Your task to perform on an android device: change notification settings in the gmail app Image 0: 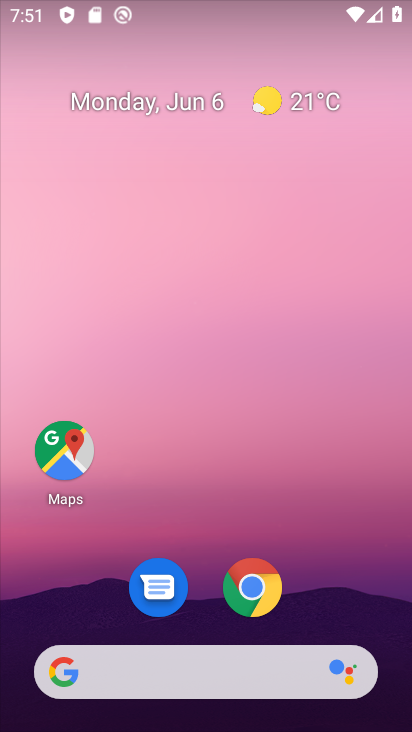
Step 0: drag from (134, 528) to (263, 0)
Your task to perform on an android device: change notification settings in the gmail app Image 1: 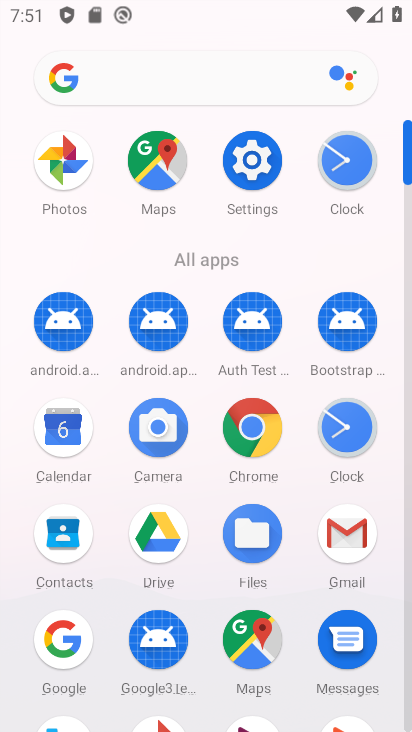
Step 1: click (250, 158)
Your task to perform on an android device: change notification settings in the gmail app Image 2: 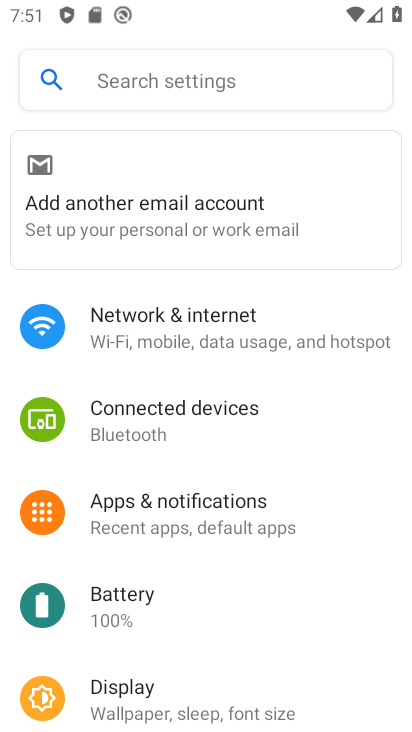
Step 2: click (235, 525)
Your task to perform on an android device: change notification settings in the gmail app Image 3: 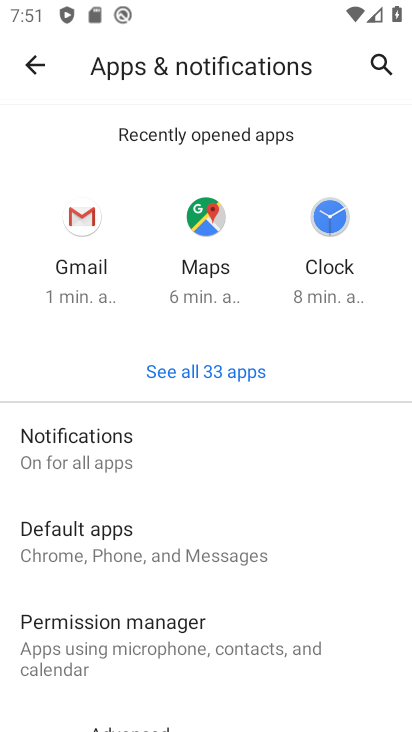
Step 3: click (66, 226)
Your task to perform on an android device: change notification settings in the gmail app Image 4: 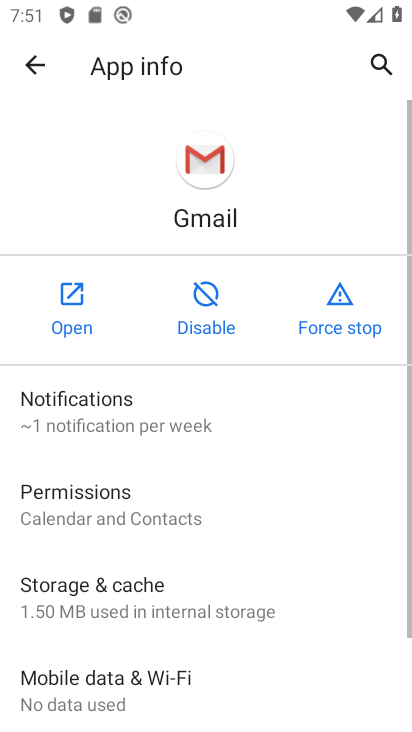
Step 4: click (231, 407)
Your task to perform on an android device: change notification settings in the gmail app Image 5: 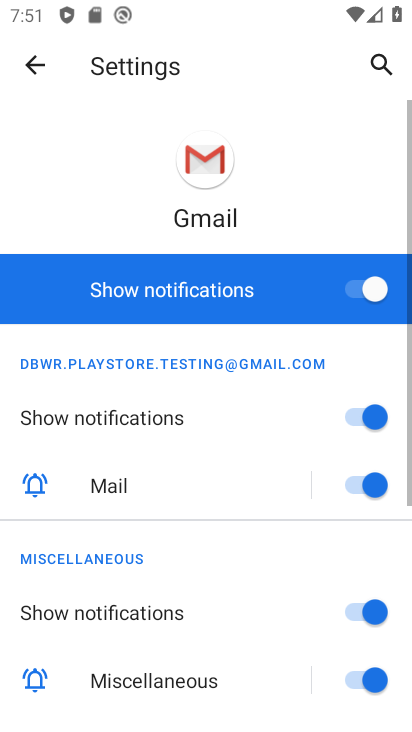
Step 5: click (357, 281)
Your task to perform on an android device: change notification settings in the gmail app Image 6: 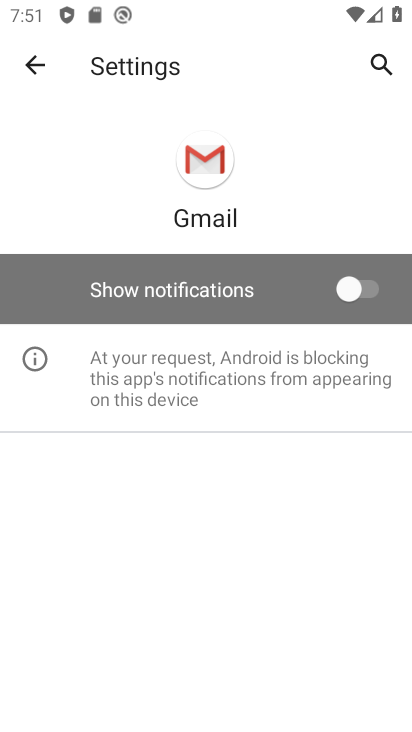
Step 6: task complete